Your task to perform on an android device: open app "Skype" Image 0: 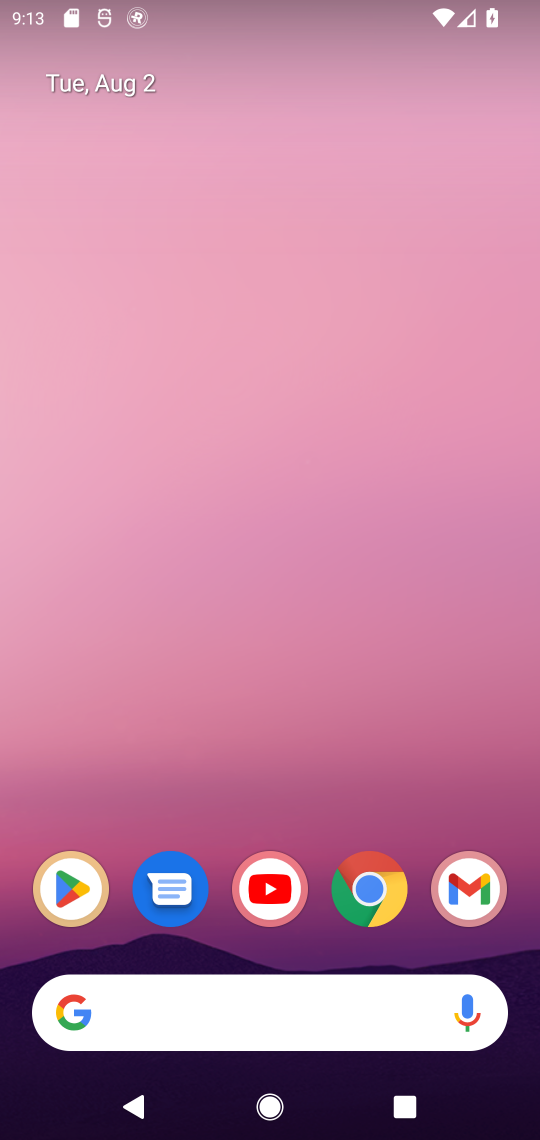
Step 0: press home button
Your task to perform on an android device: open app "Skype" Image 1: 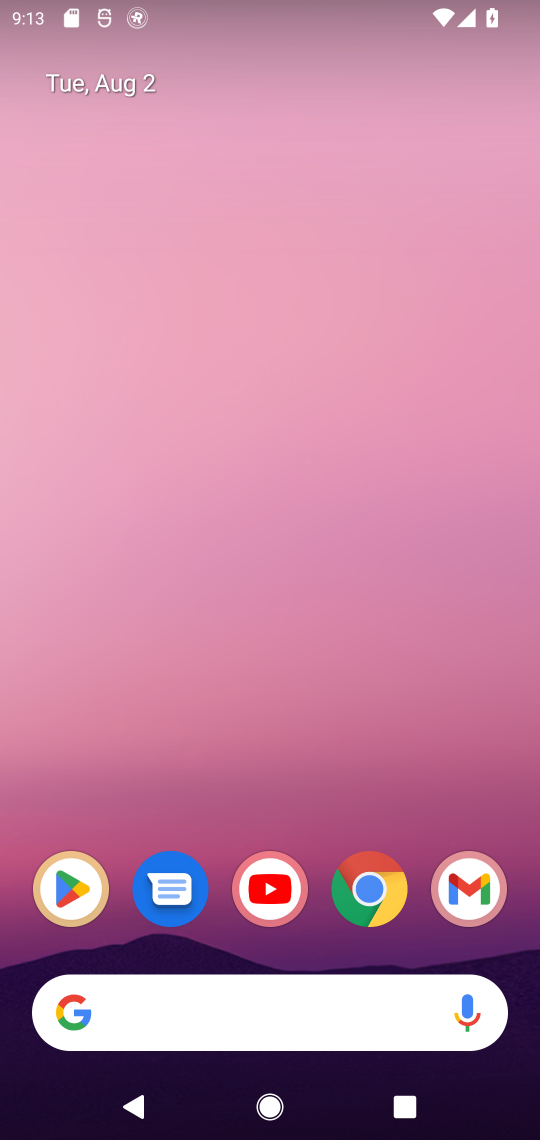
Step 1: click (66, 894)
Your task to perform on an android device: open app "Skype" Image 2: 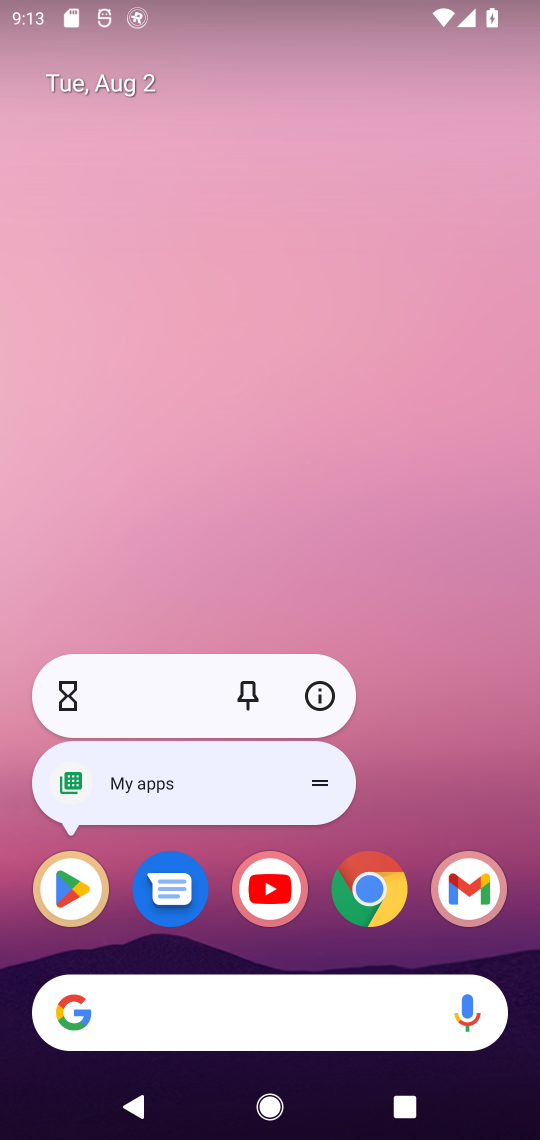
Step 2: click (66, 898)
Your task to perform on an android device: open app "Skype" Image 3: 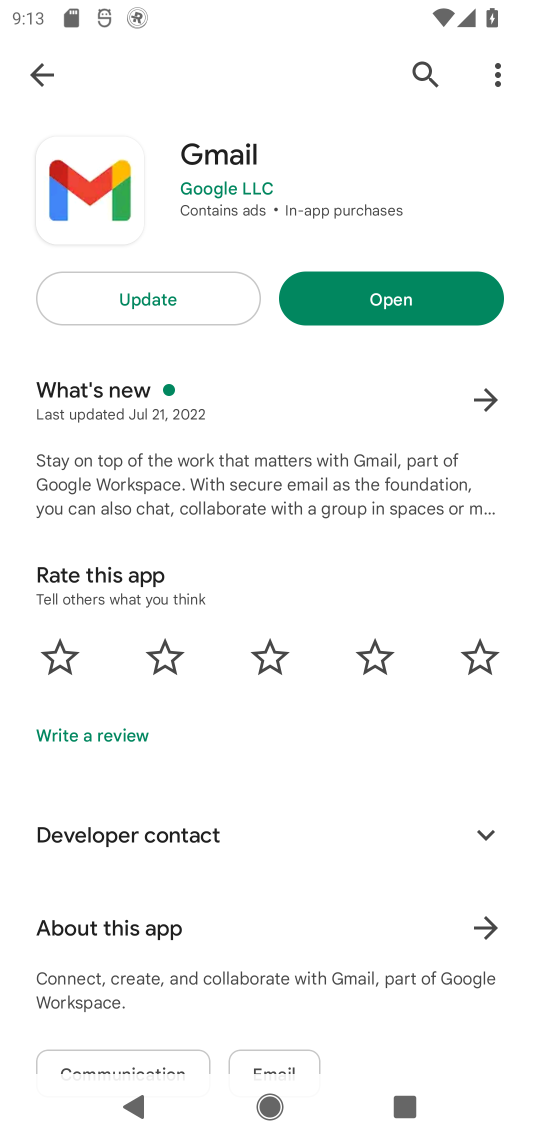
Step 3: click (422, 65)
Your task to perform on an android device: open app "Skype" Image 4: 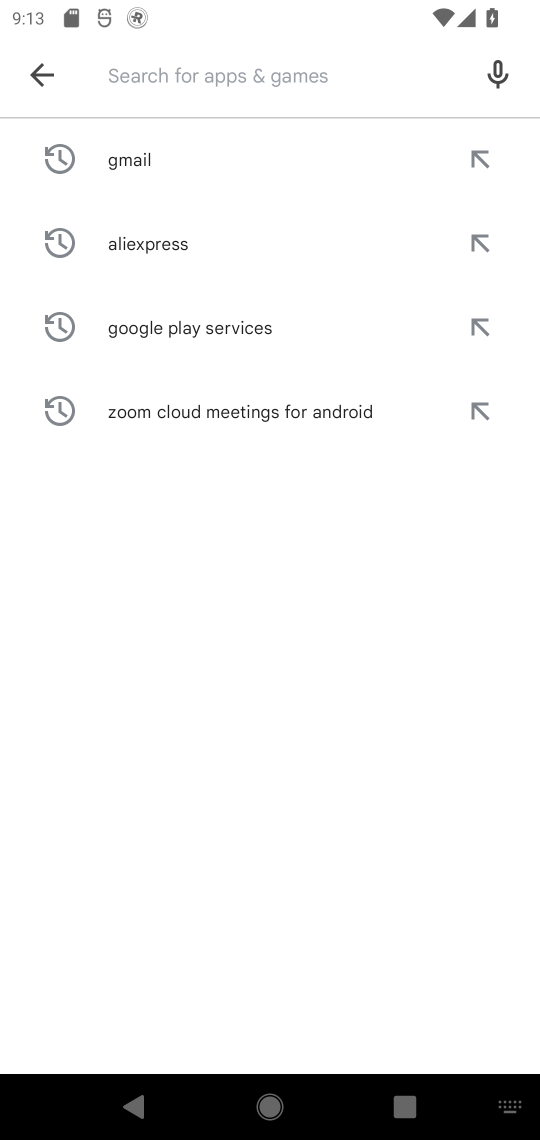
Step 4: type "Skype"
Your task to perform on an android device: open app "Skype" Image 5: 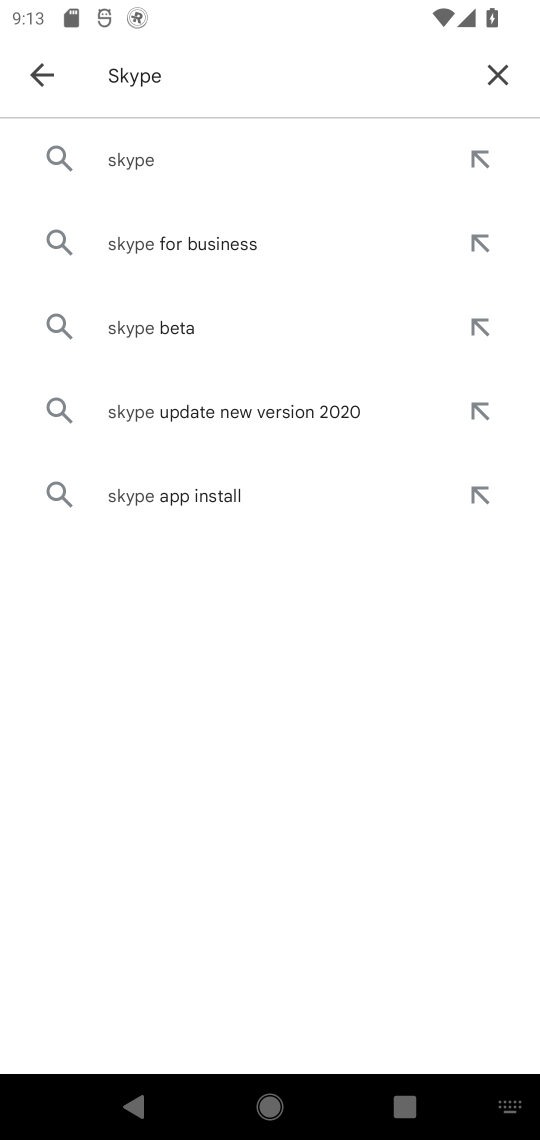
Step 5: click (177, 165)
Your task to perform on an android device: open app "Skype" Image 6: 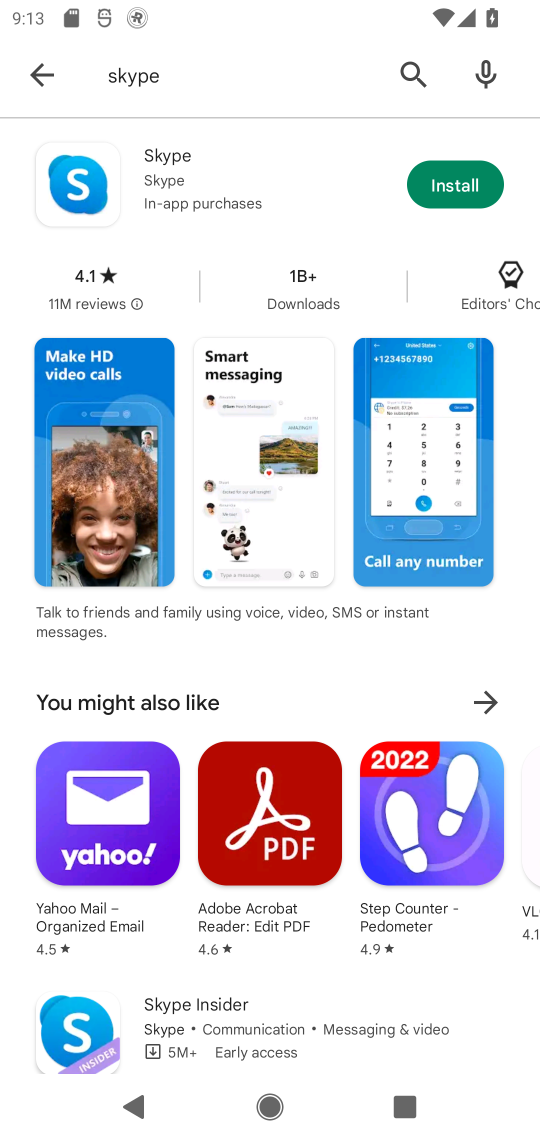
Step 6: task complete